Your task to perform on an android device: Search for Mexican restaurants on Maps Image 0: 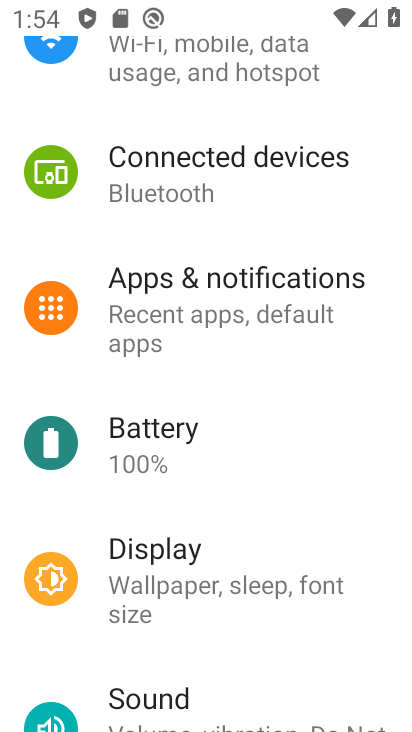
Step 0: press home button
Your task to perform on an android device: Search for Mexican restaurants on Maps Image 1: 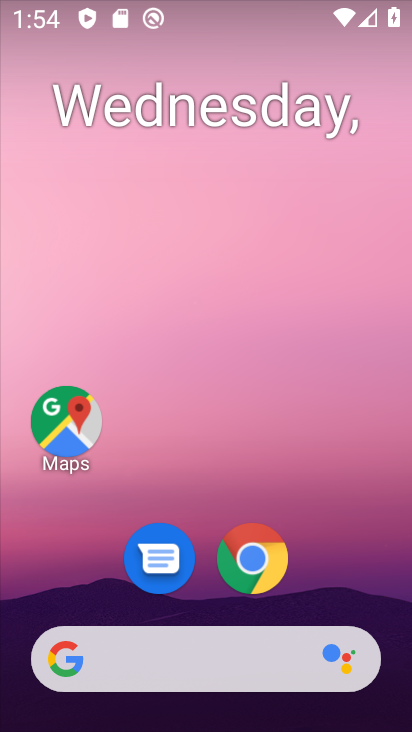
Step 1: drag from (353, 497) to (290, 2)
Your task to perform on an android device: Search for Mexican restaurants on Maps Image 2: 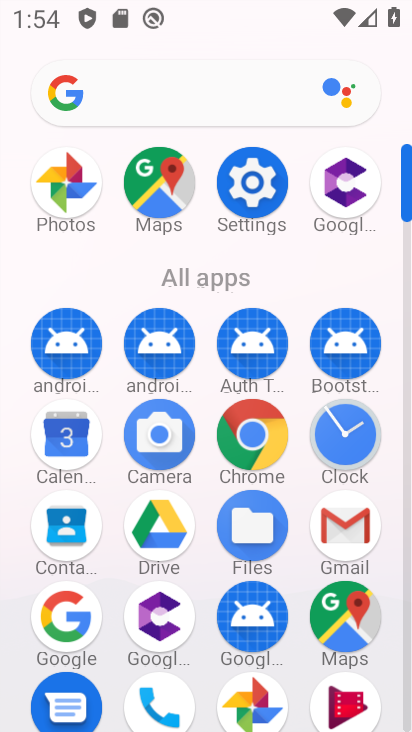
Step 2: click (327, 627)
Your task to perform on an android device: Search for Mexican restaurants on Maps Image 3: 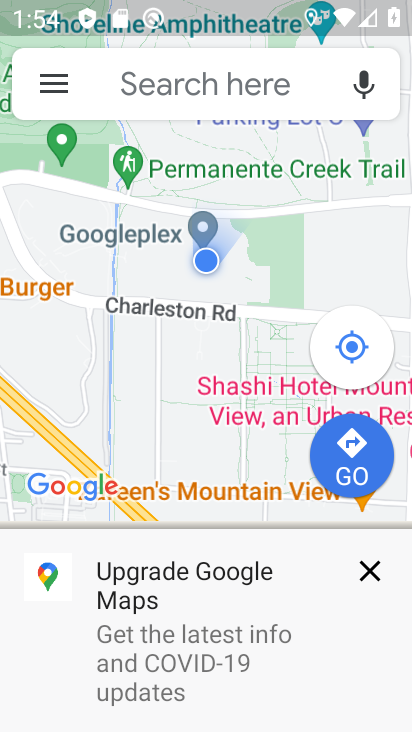
Step 3: click (191, 81)
Your task to perform on an android device: Search for Mexican restaurants on Maps Image 4: 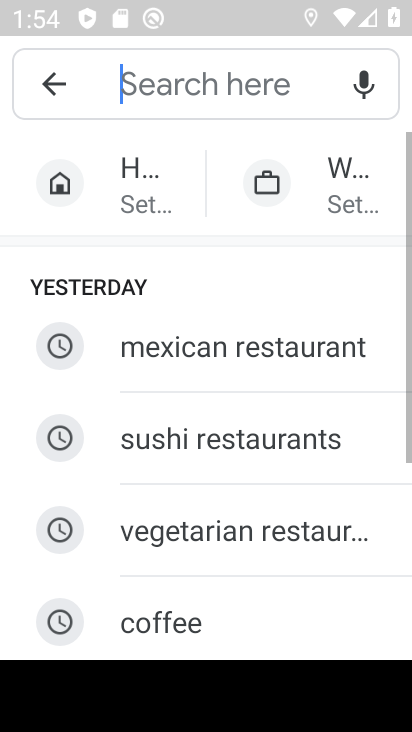
Step 4: click (225, 340)
Your task to perform on an android device: Search for Mexican restaurants on Maps Image 5: 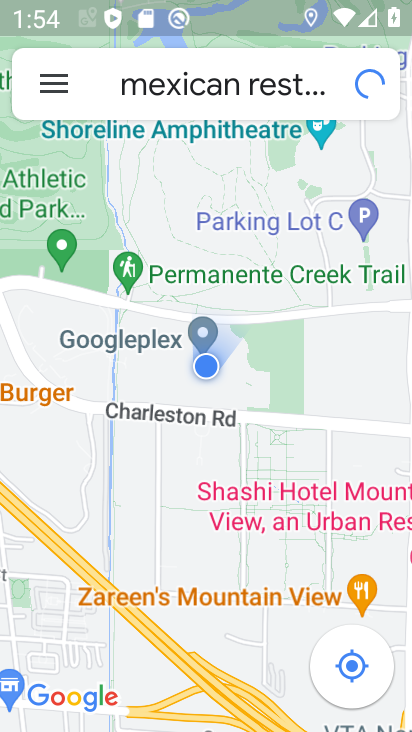
Step 5: click (225, 340)
Your task to perform on an android device: Search for Mexican restaurants on Maps Image 6: 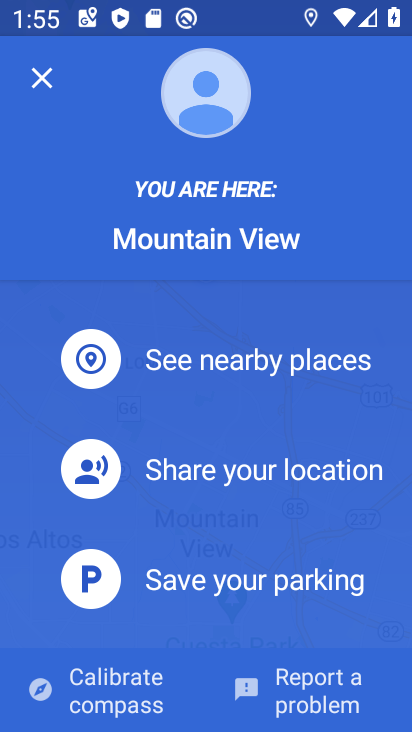
Step 6: click (39, 85)
Your task to perform on an android device: Search for Mexican restaurants on Maps Image 7: 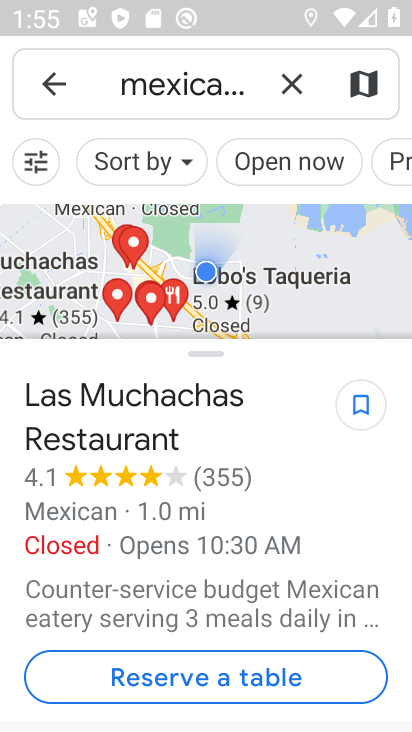
Step 7: task complete